Your task to perform on an android device: Open maps Image 0: 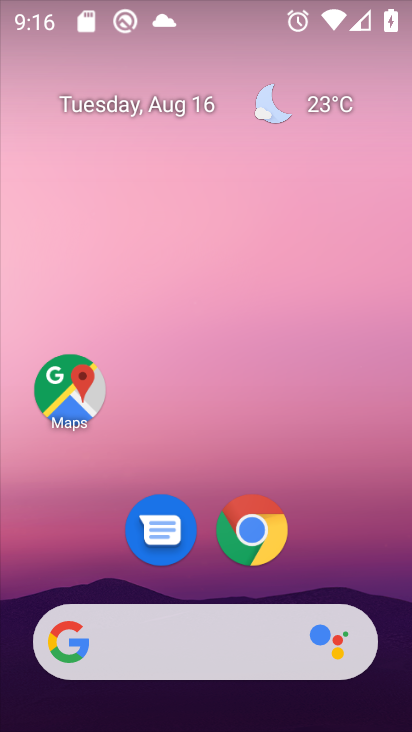
Step 0: drag from (344, 534) to (338, 112)
Your task to perform on an android device: Open maps Image 1: 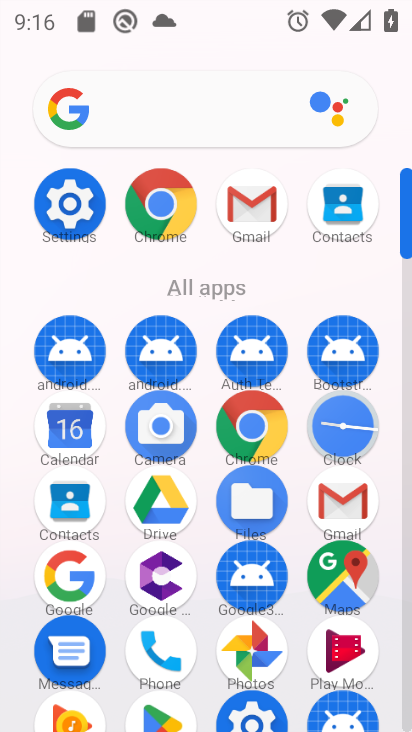
Step 1: click (345, 576)
Your task to perform on an android device: Open maps Image 2: 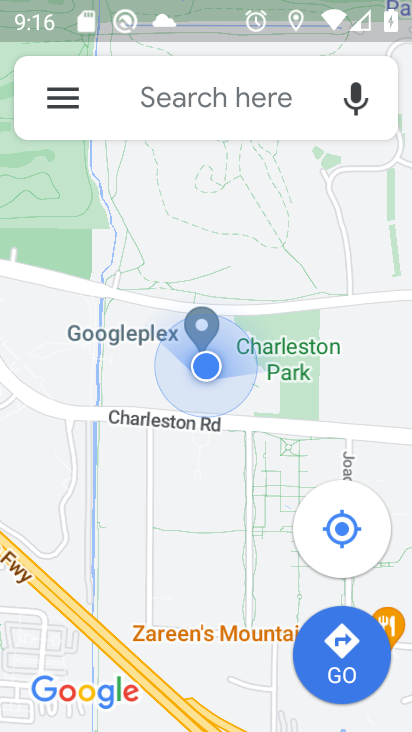
Step 2: task complete